Your task to perform on an android device: Open settings on Google Maps Image 0: 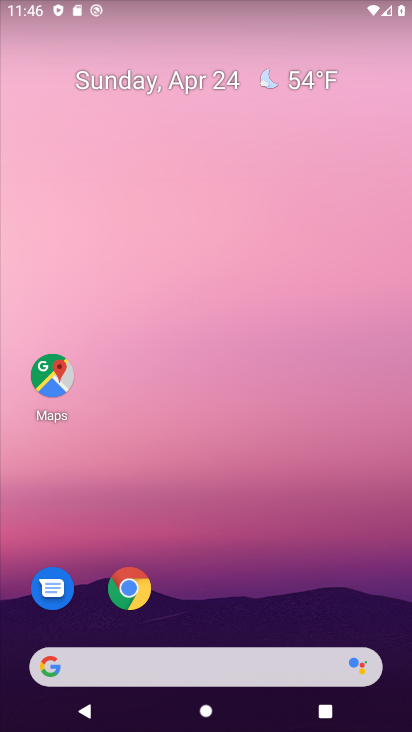
Step 0: drag from (208, 623) to (347, 2)
Your task to perform on an android device: Open settings on Google Maps Image 1: 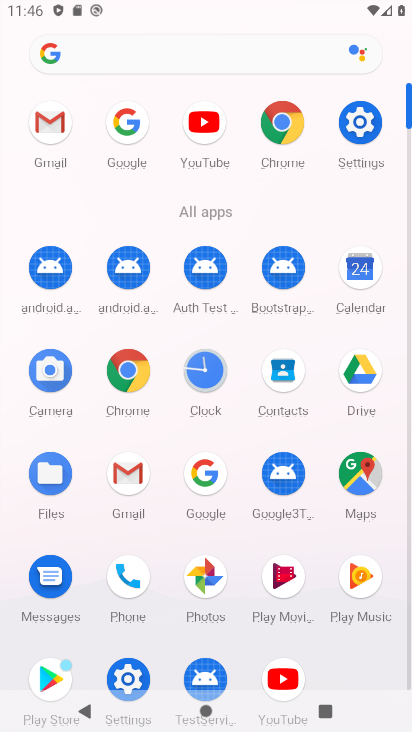
Step 1: click (358, 503)
Your task to perform on an android device: Open settings on Google Maps Image 2: 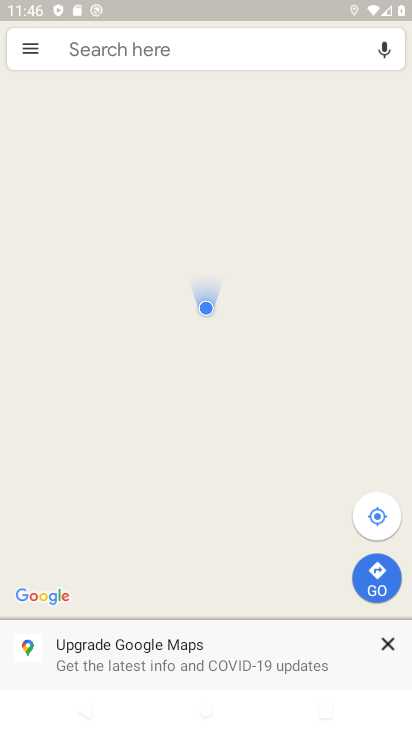
Step 2: click (29, 36)
Your task to perform on an android device: Open settings on Google Maps Image 3: 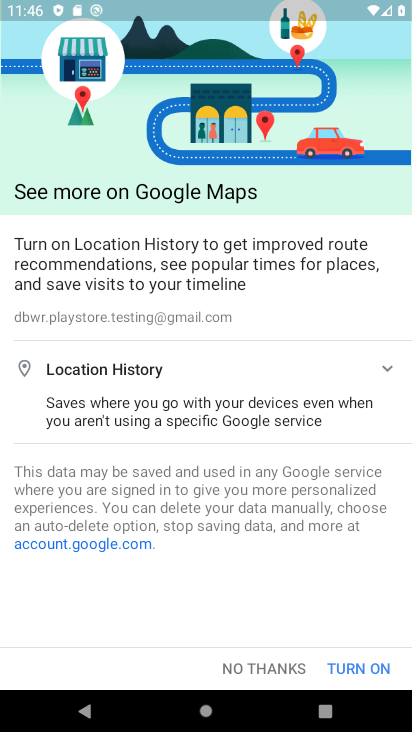
Step 3: click (359, 667)
Your task to perform on an android device: Open settings on Google Maps Image 4: 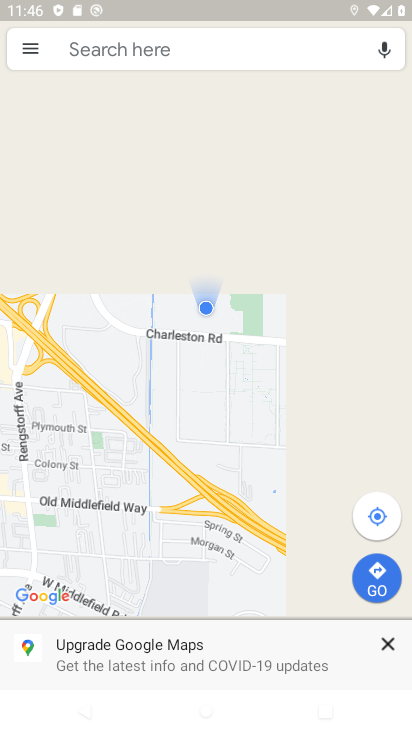
Step 4: click (356, 667)
Your task to perform on an android device: Open settings on Google Maps Image 5: 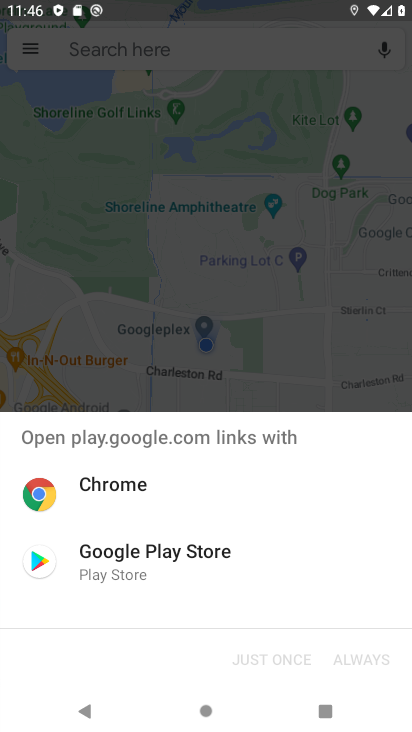
Step 5: click (140, 260)
Your task to perform on an android device: Open settings on Google Maps Image 6: 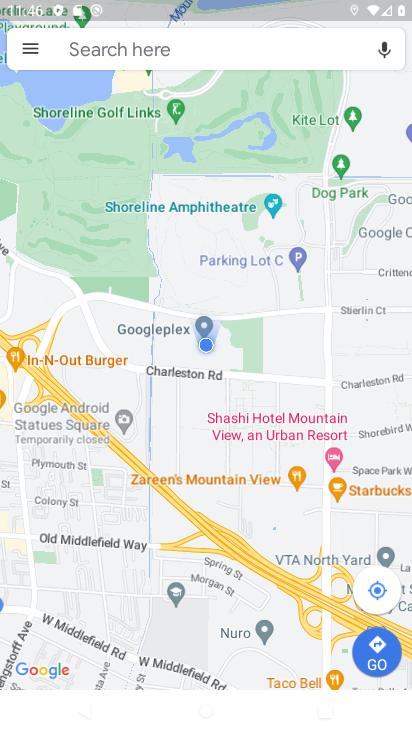
Step 6: click (34, 44)
Your task to perform on an android device: Open settings on Google Maps Image 7: 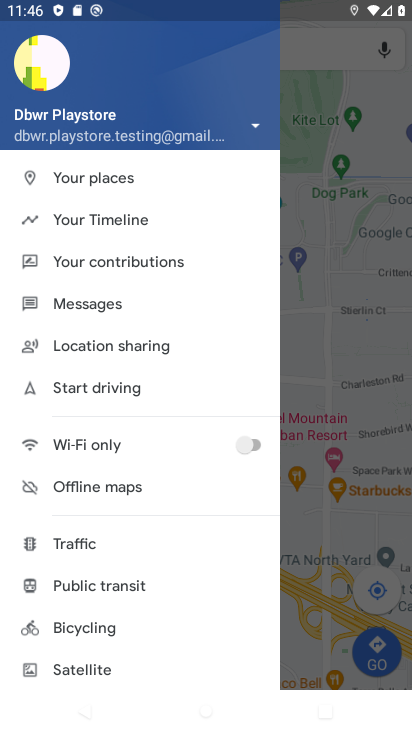
Step 7: drag from (77, 637) to (49, 76)
Your task to perform on an android device: Open settings on Google Maps Image 8: 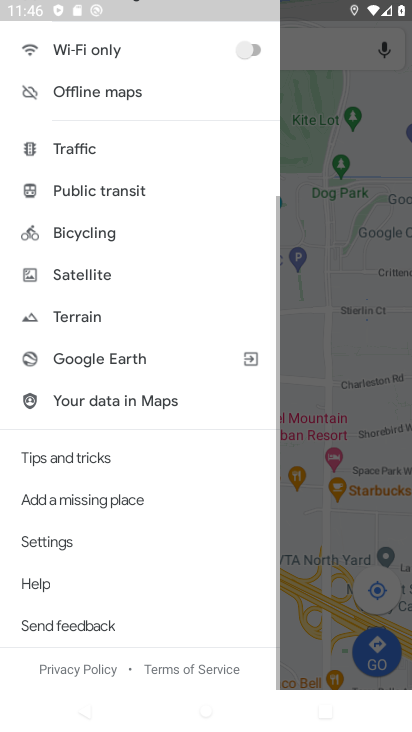
Step 8: click (55, 539)
Your task to perform on an android device: Open settings on Google Maps Image 9: 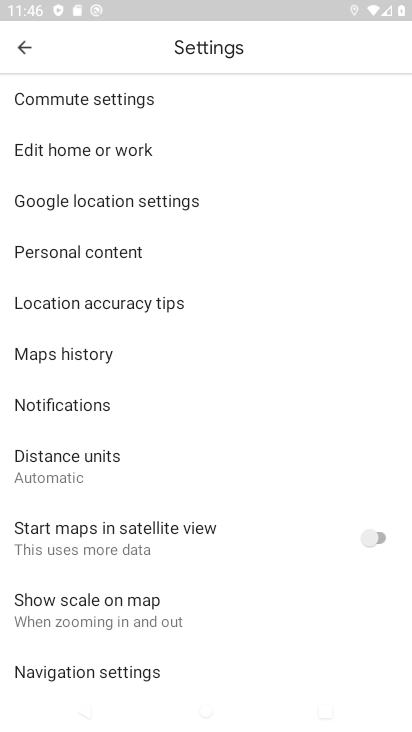
Step 9: task complete